Your task to perform on an android device: Add "bose soundsport free" to the cart on bestbuy Image 0: 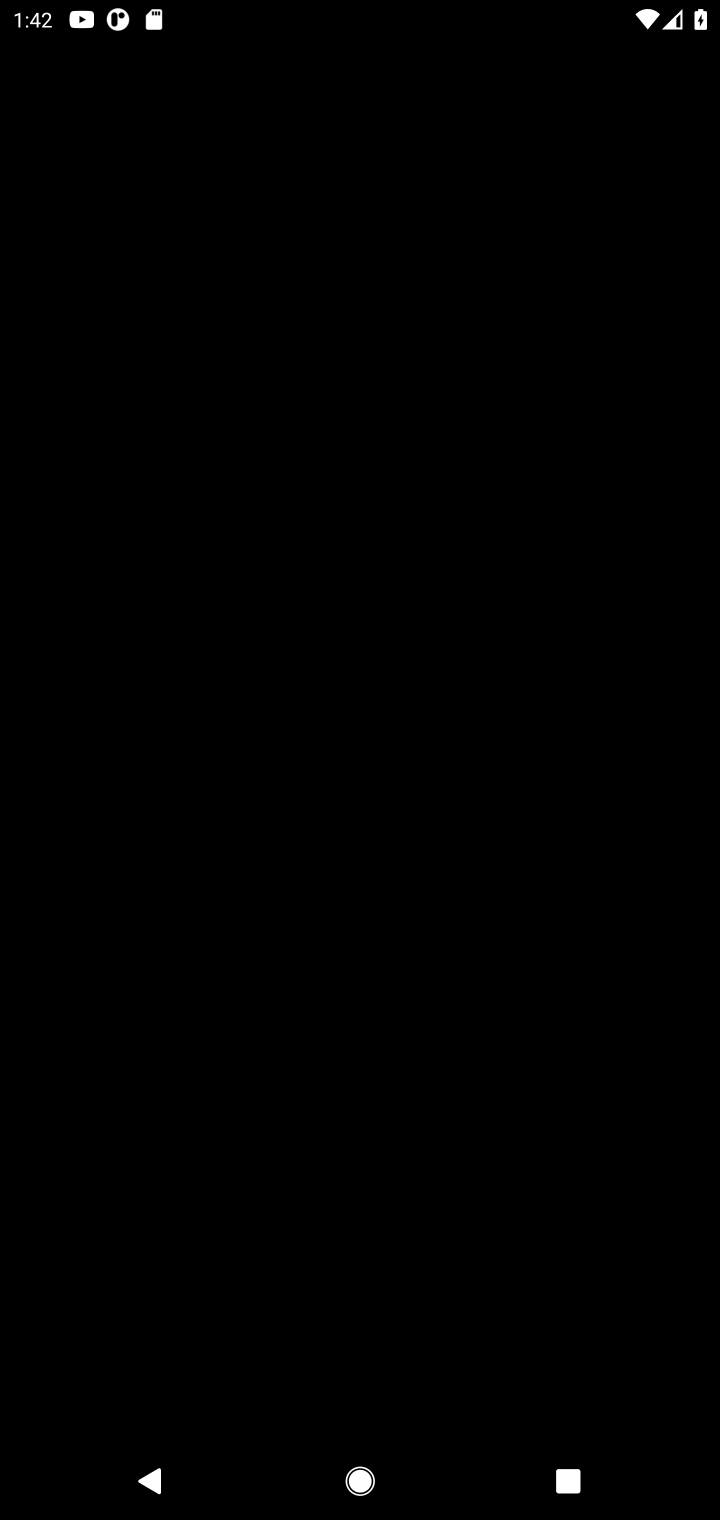
Step 0: press home button
Your task to perform on an android device: Add "bose soundsport free" to the cart on bestbuy Image 1: 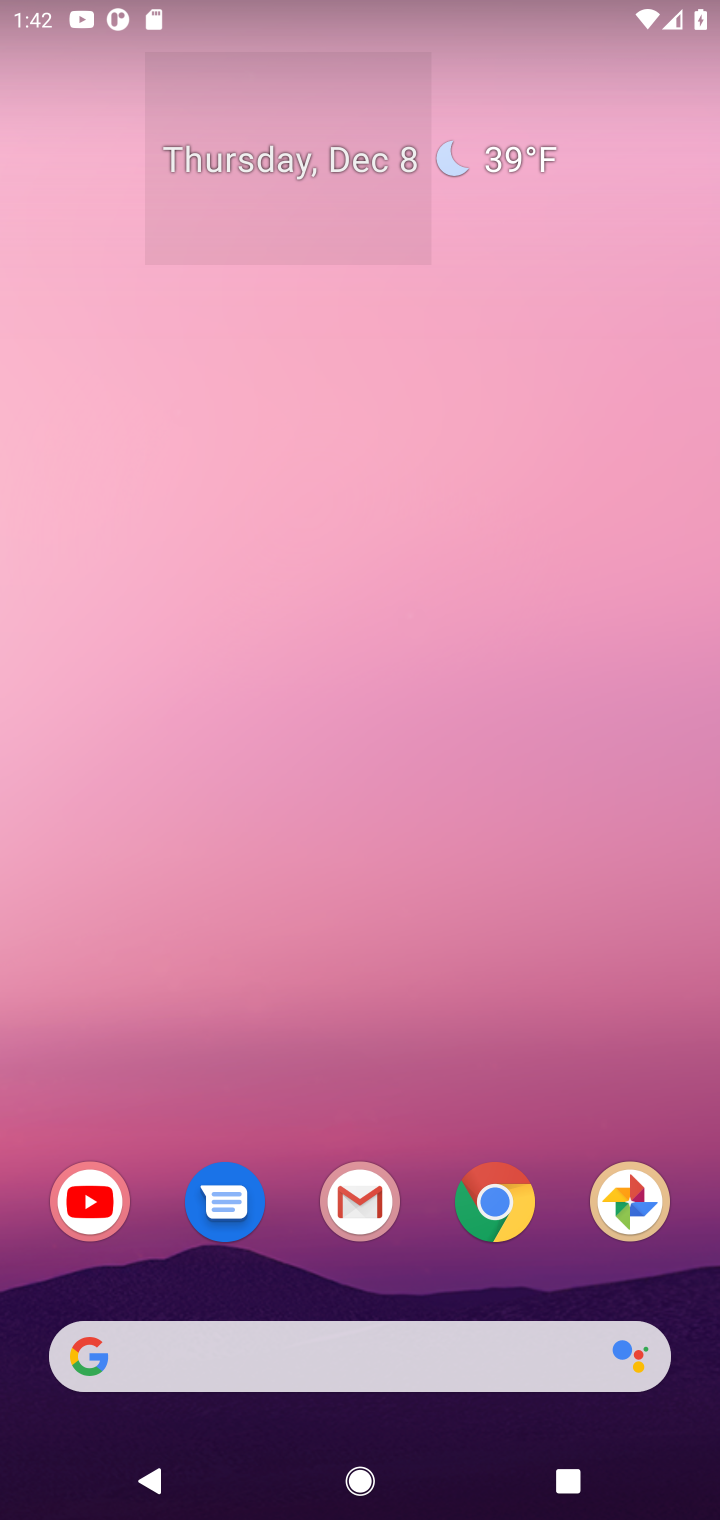
Step 1: click (485, 1178)
Your task to perform on an android device: Add "bose soundsport free" to the cart on bestbuy Image 2: 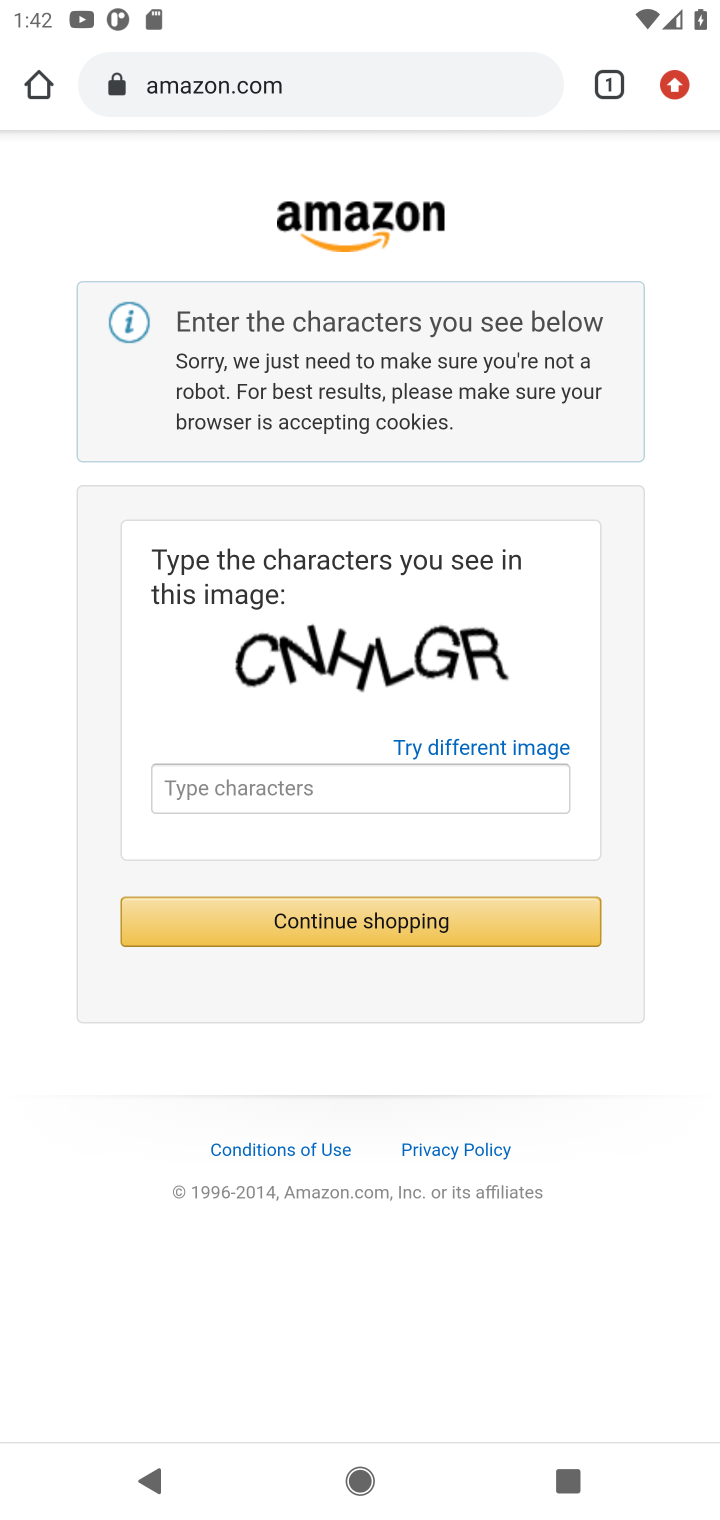
Step 2: click (428, 80)
Your task to perform on an android device: Add "bose soundsport free" to the cart on bestbuy Image 3: 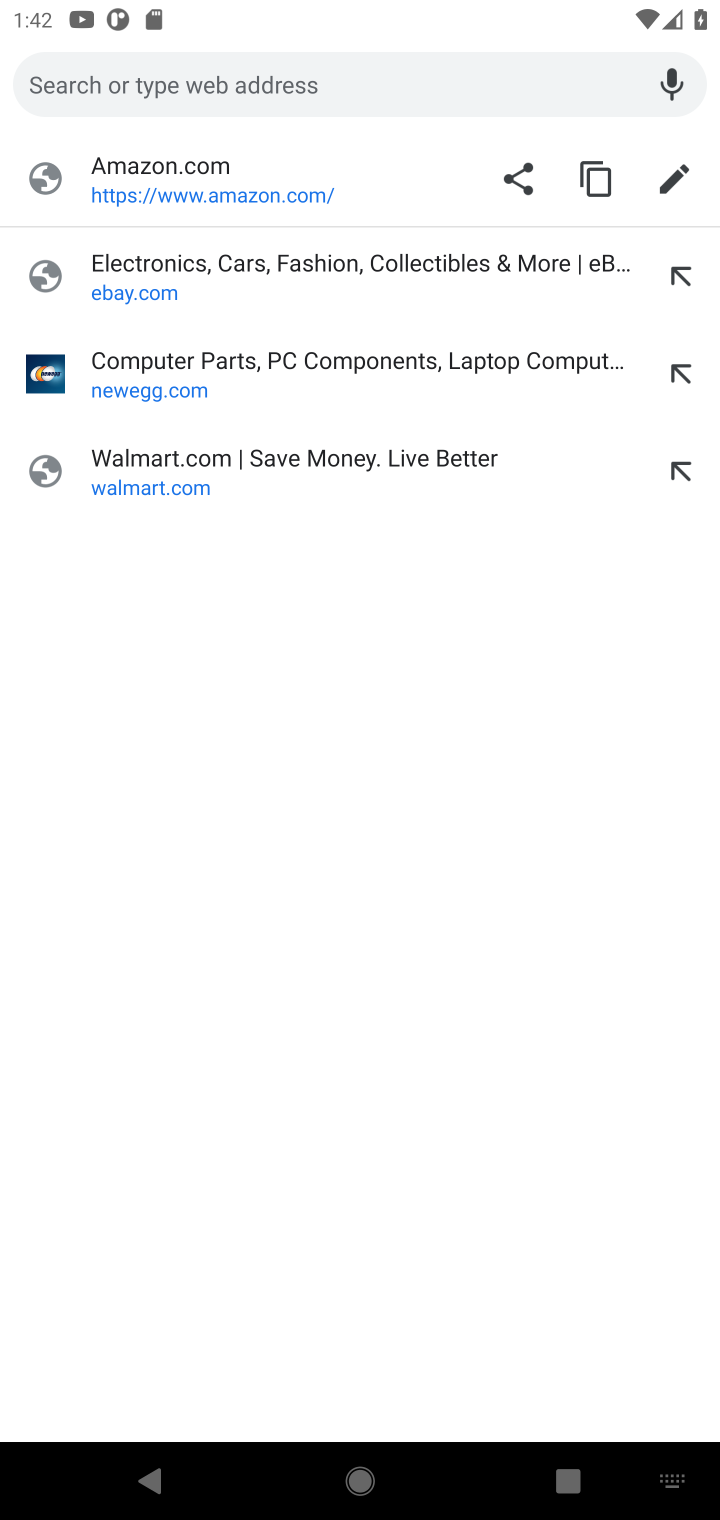
Step 3: press enter
Your task to perform on an android device: Add "bose soundsport free" to the cart on bestbuy Image 4: 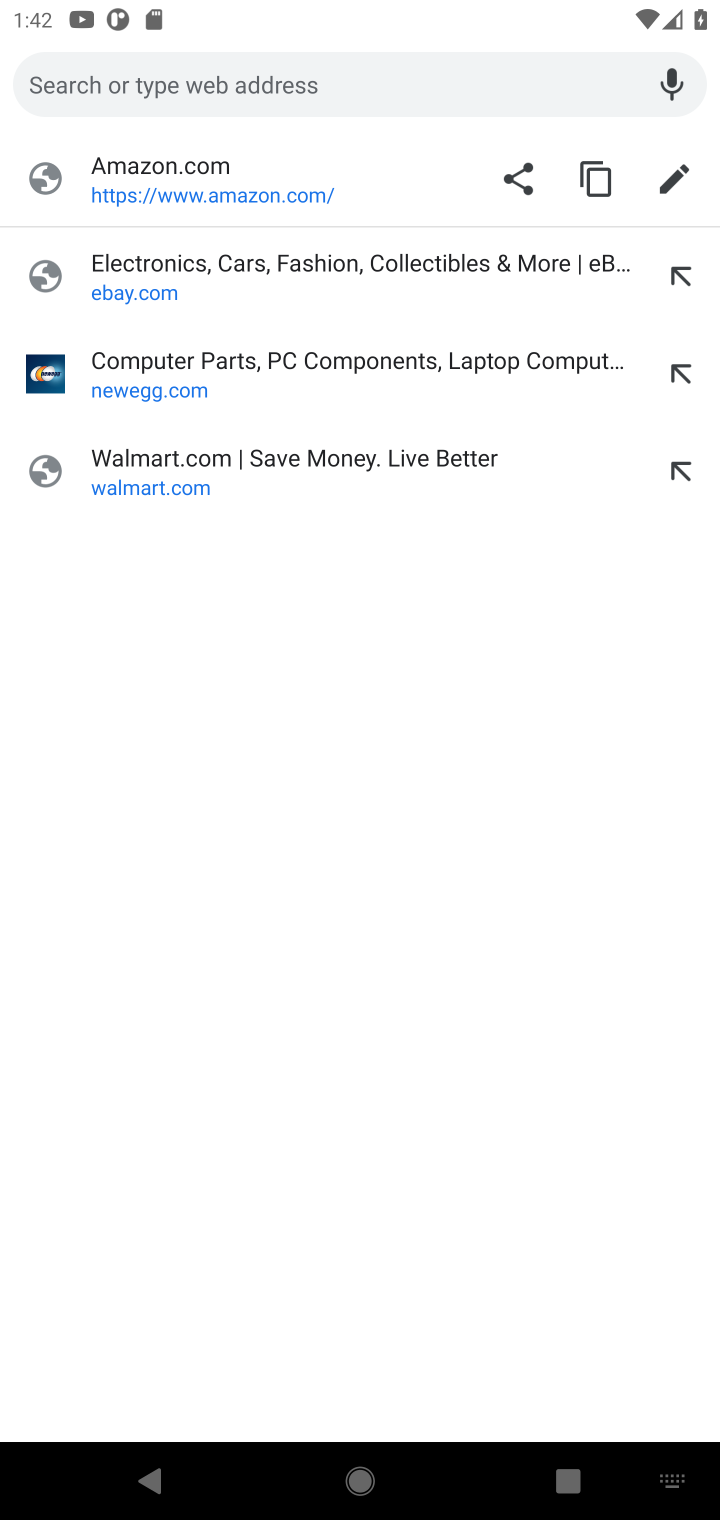
Step 4: type "bestbuy"
Your task to perform on an android device: Add "bose soundsport free" to the cart on bestbuy Image 5: 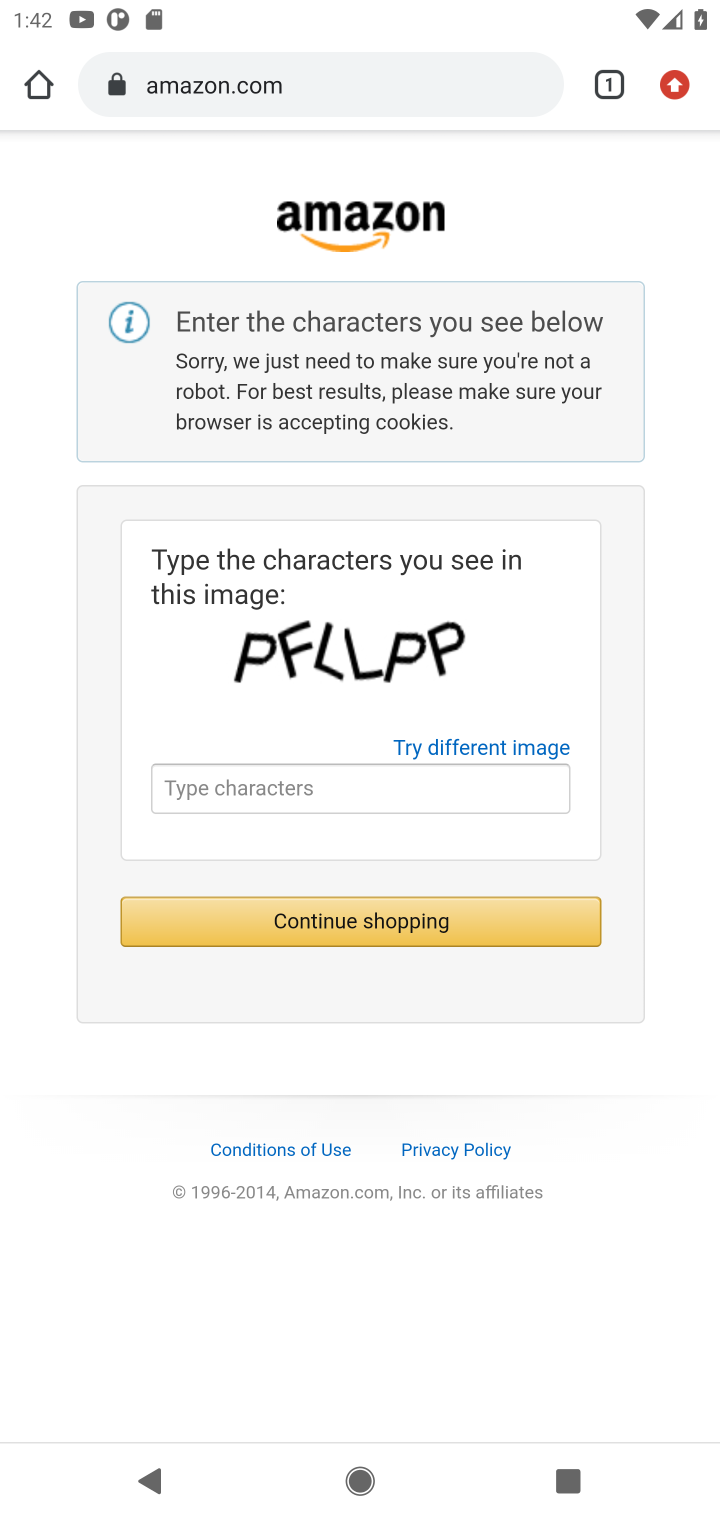
Step 5: click (28, 81)
Your task to perform on an android device: Add "bose soundsport free" to the cart on bestbuy Image 6: 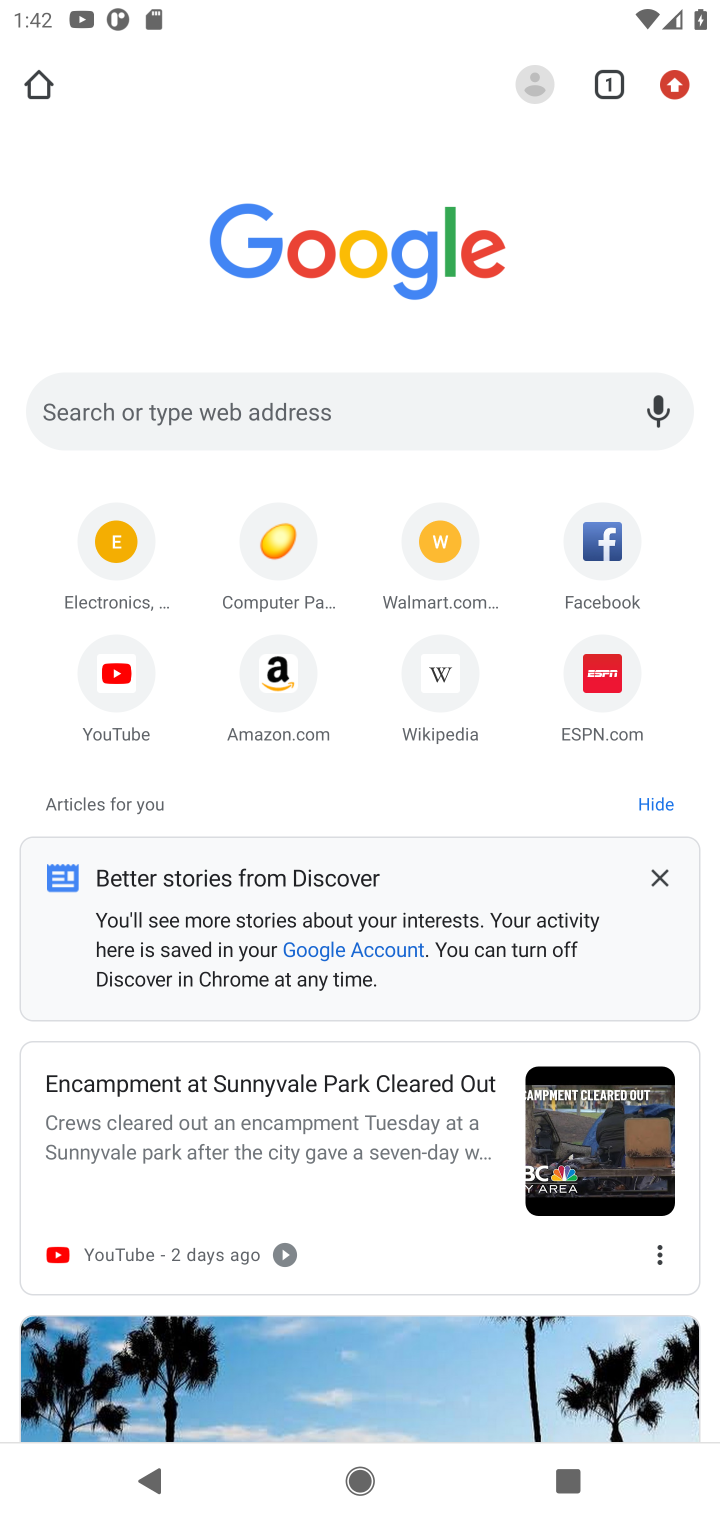
Step 6: click (387, 406)
Your task to perform on an android device: Add "bose soundsport free" to the cart on bestbuy Image 7: 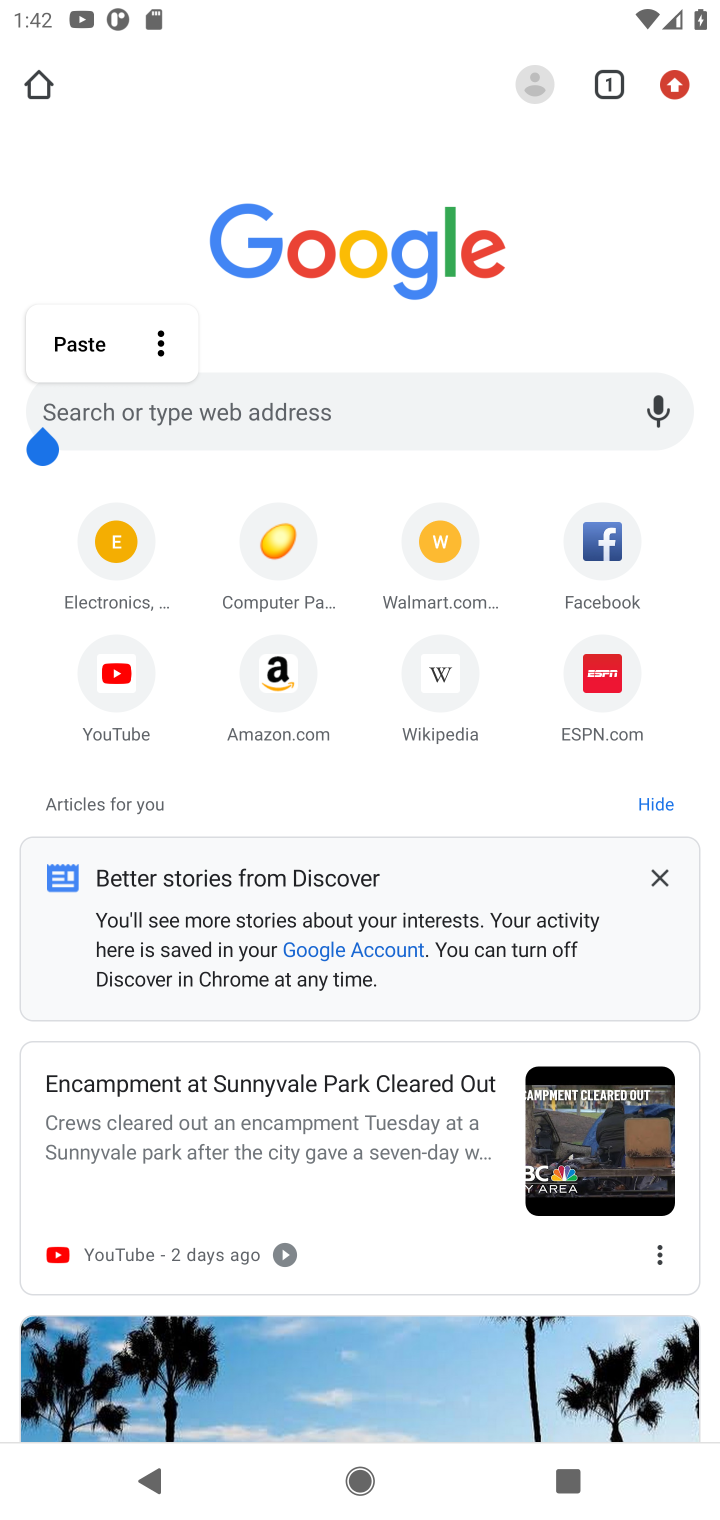
Step 7: click (387, 406)
Your task to perform on an android device: Add "bose soundsport free" to the cart on bestbuy Image 8: 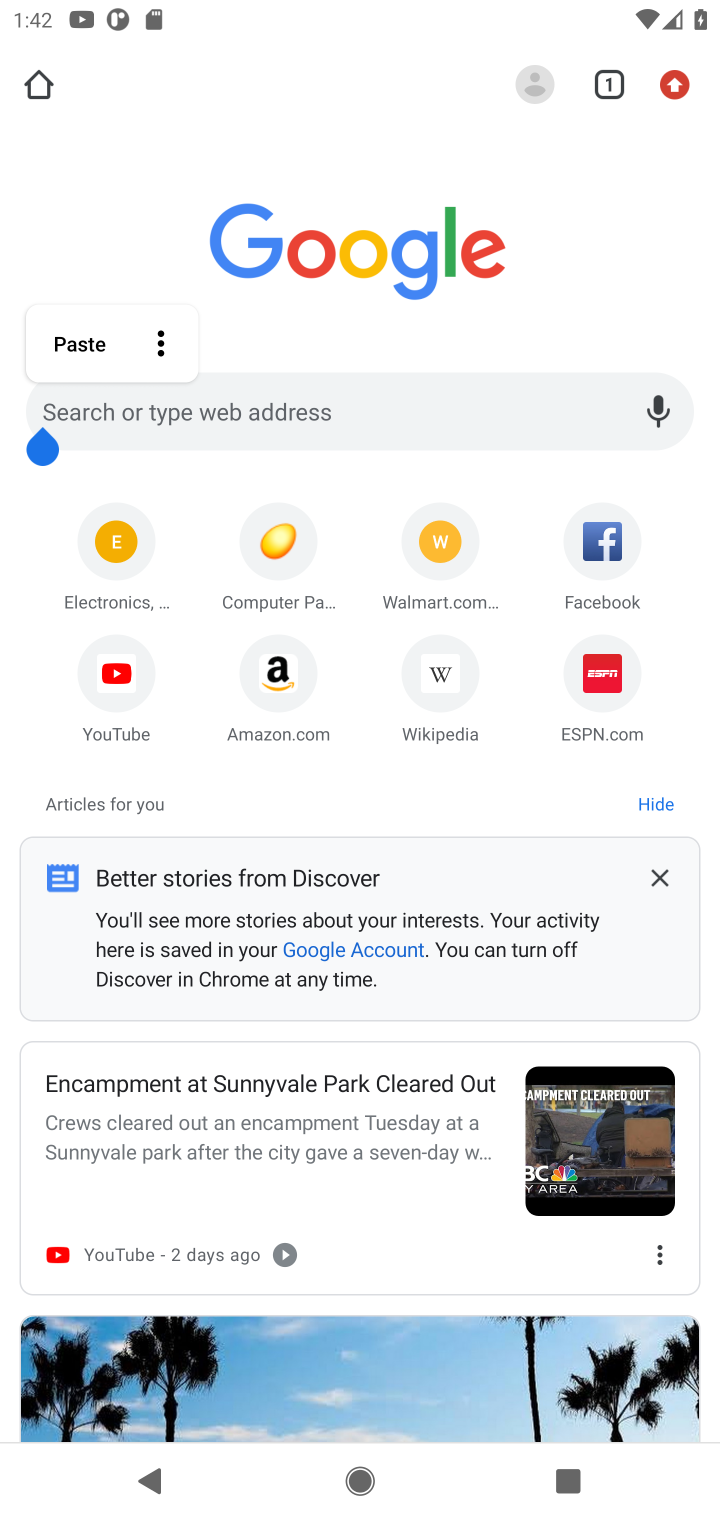
Step 8: click (387, 406)
Your task to perform on an android device: Add "bose soundsport free" to the cart on bestbuy Image 9: 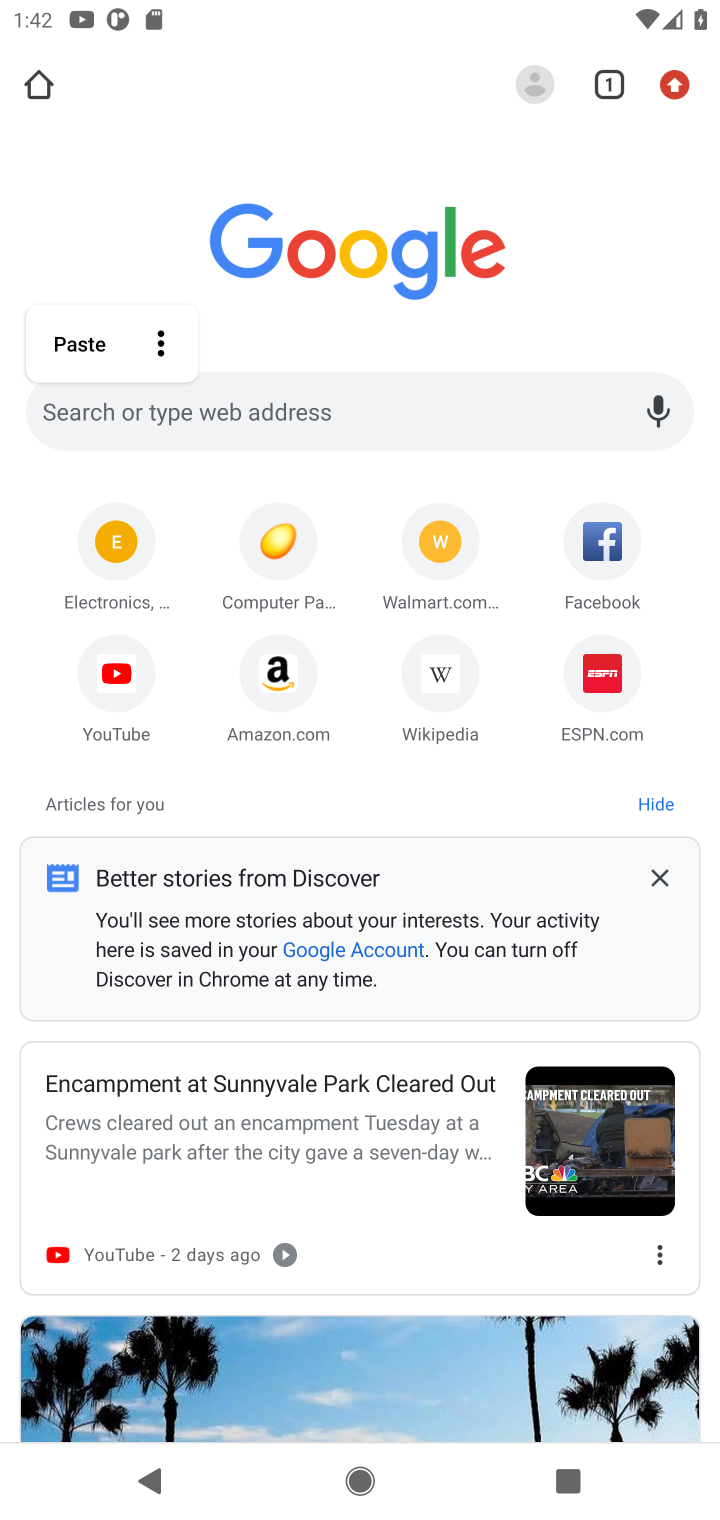
Step 9: type "bestbuy"
Your task to perform on an android device: Add "bose soundsport free" to the cart on bestbuy Image 10: 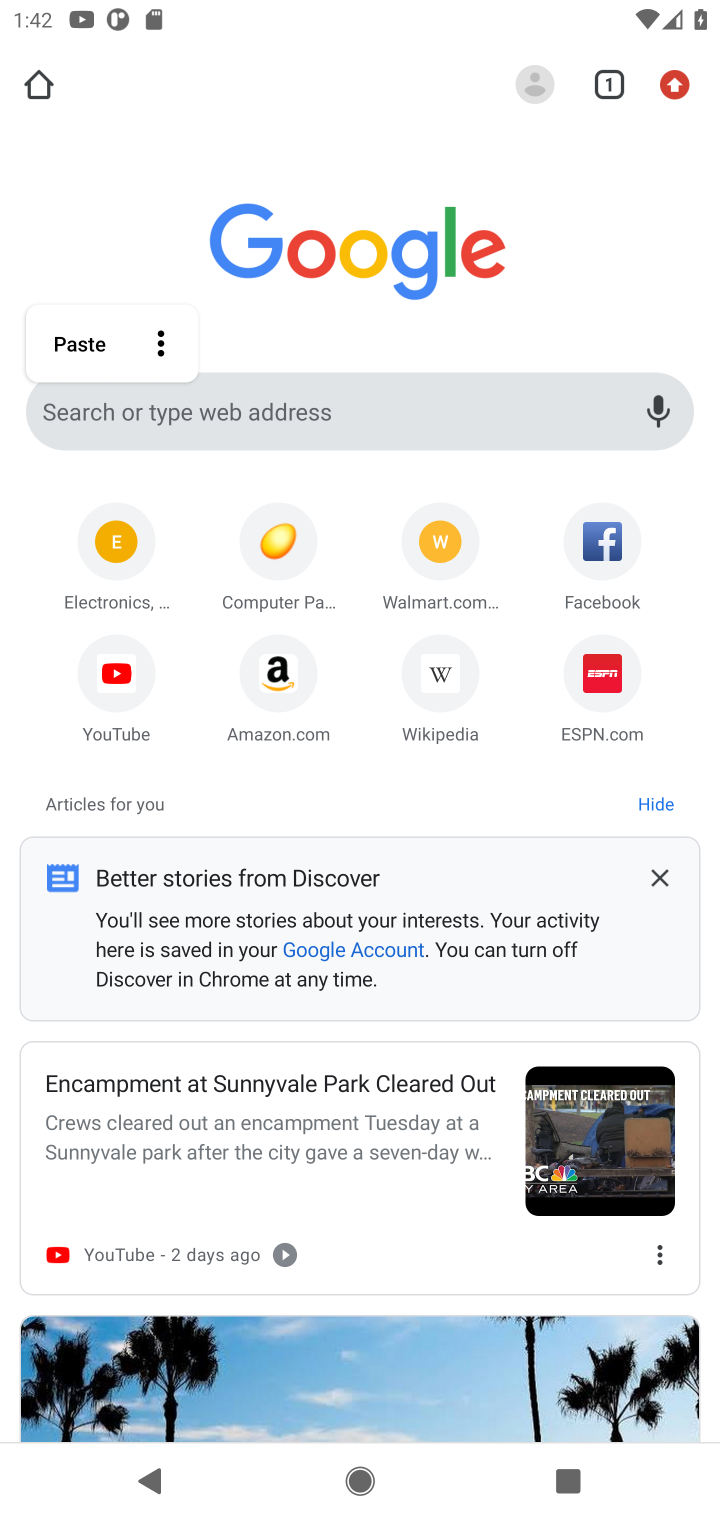
Step 10: click (662, 212)
Your task to perform on an android device: Add "bose soundsport free" to the cart on bestbuy Image 11: 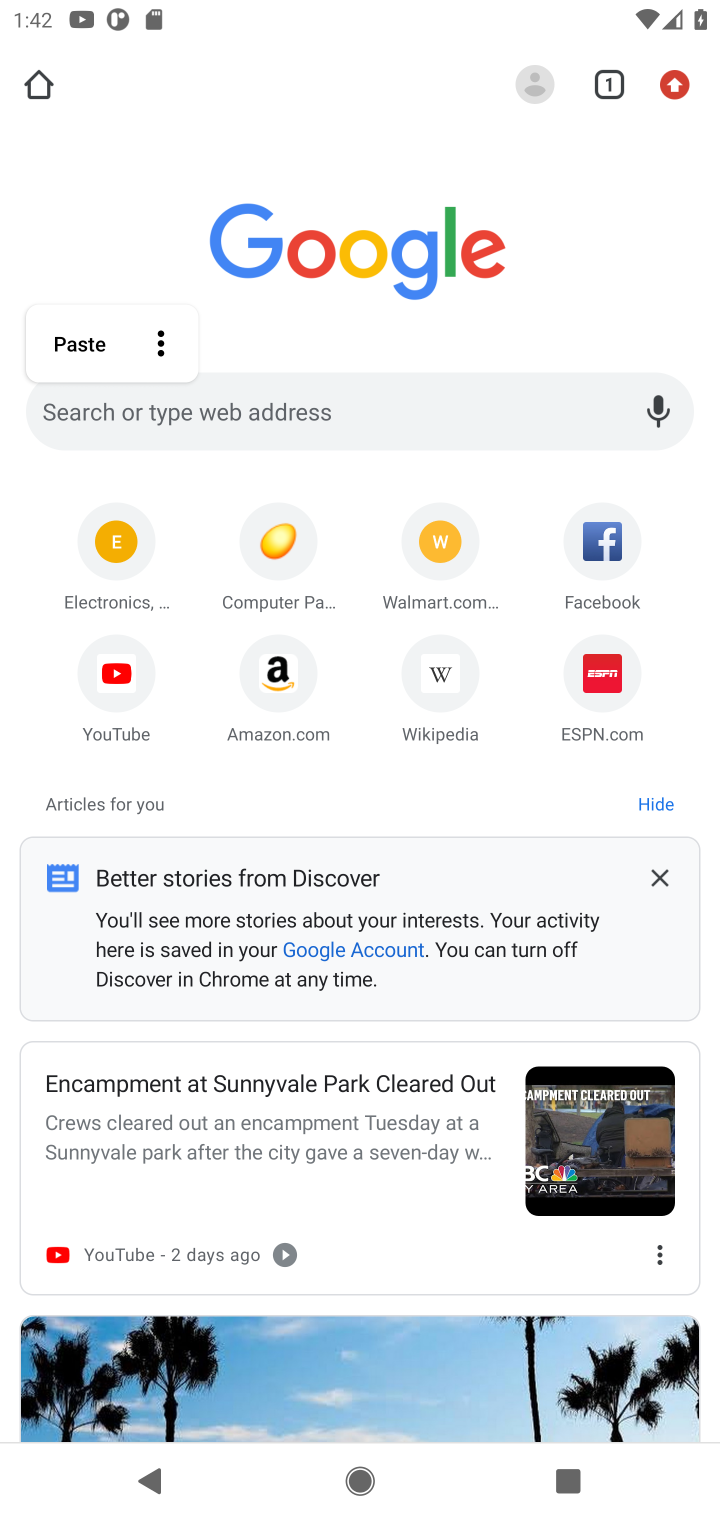
Step 11: click (484, 377)
Your task to perform on an android device: Add "bose soundsport free" to the cart on bestbuy Image 12: 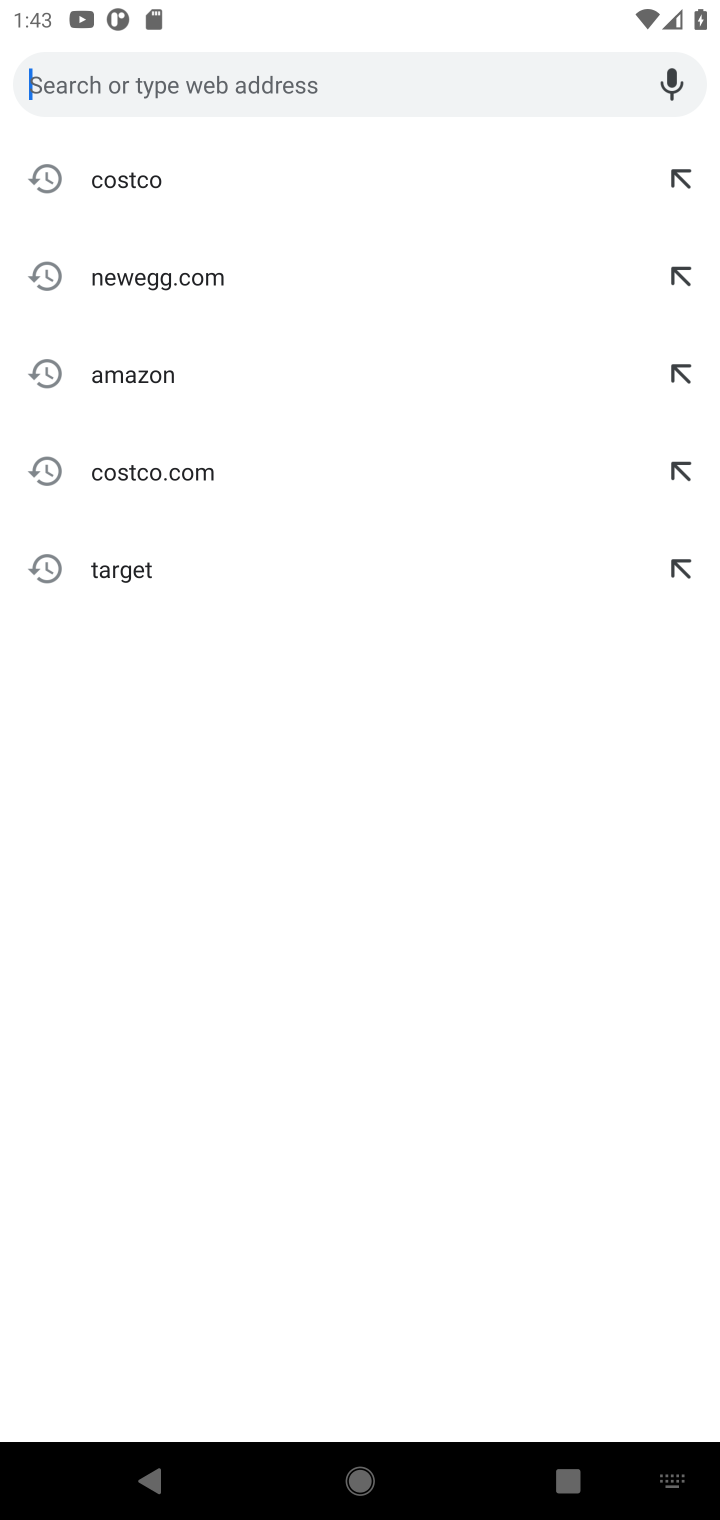
Step 12: type "besybuy"
Your task to perform on an android device: Add "bose soundsport free" to the cart on bestbuy Image 13: 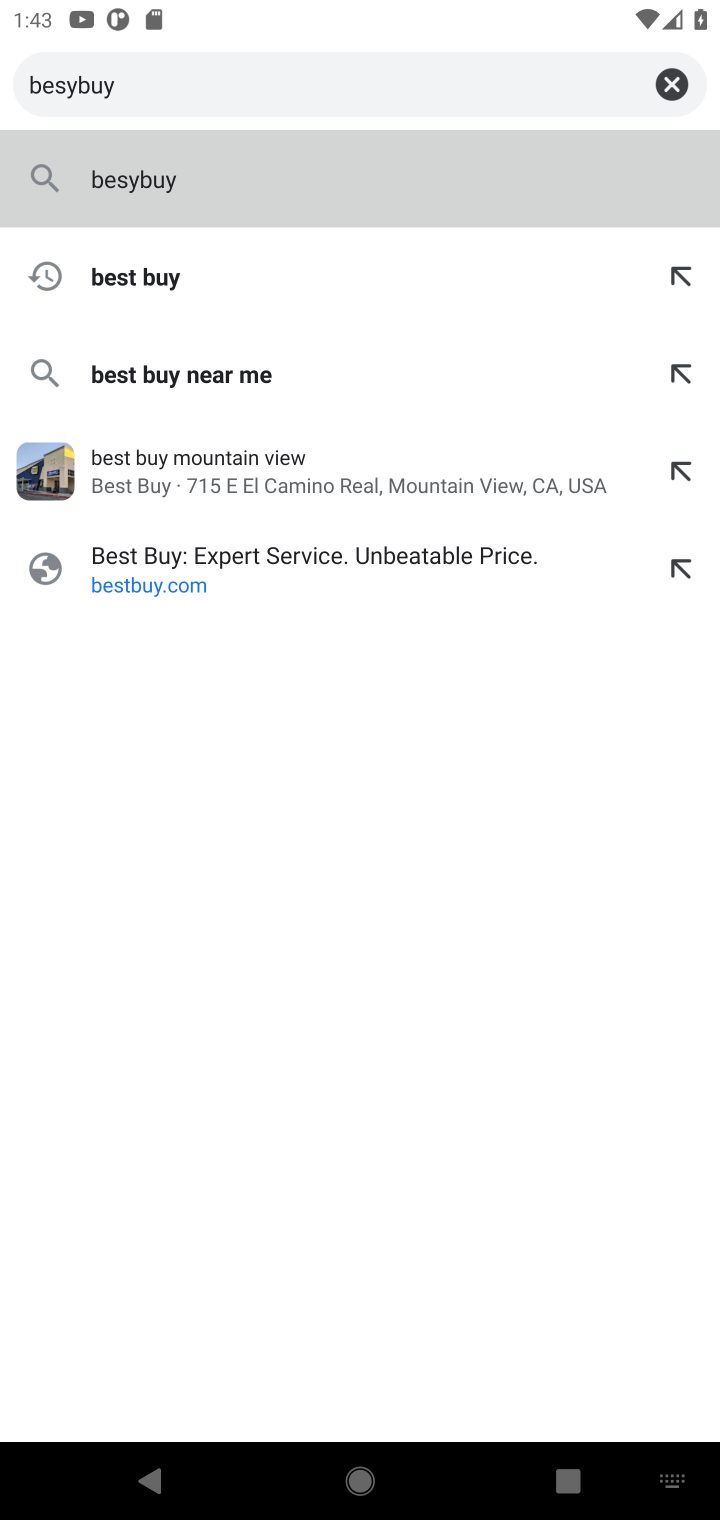
Step 13: click (193, 178)
Your task to perform on an android device: Add "bose soundsport free" to the cart on bestbuy Image 14: 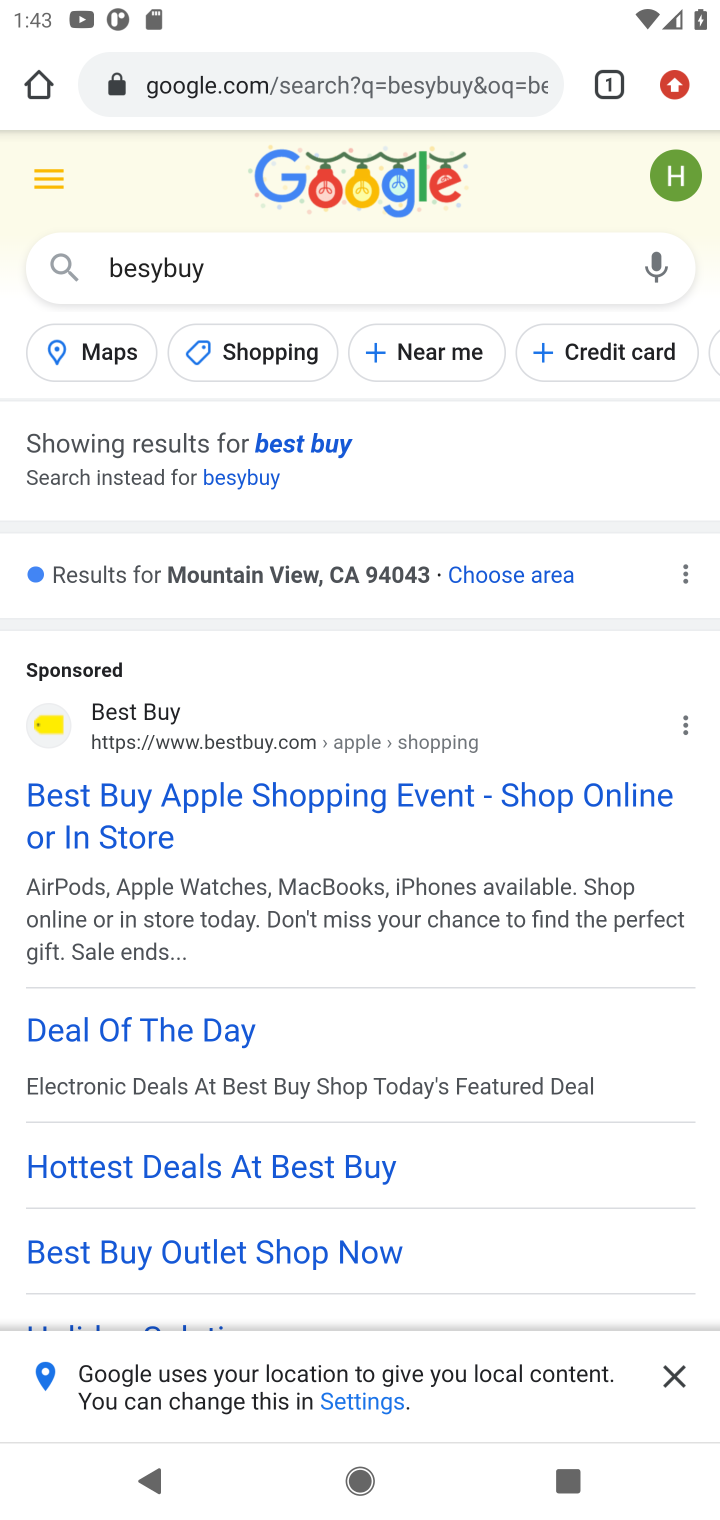
Step 14: click (207, 740)
Your task to perform on an android device: Add "bose soundsport free" to the cart on bestbuy Image 15: 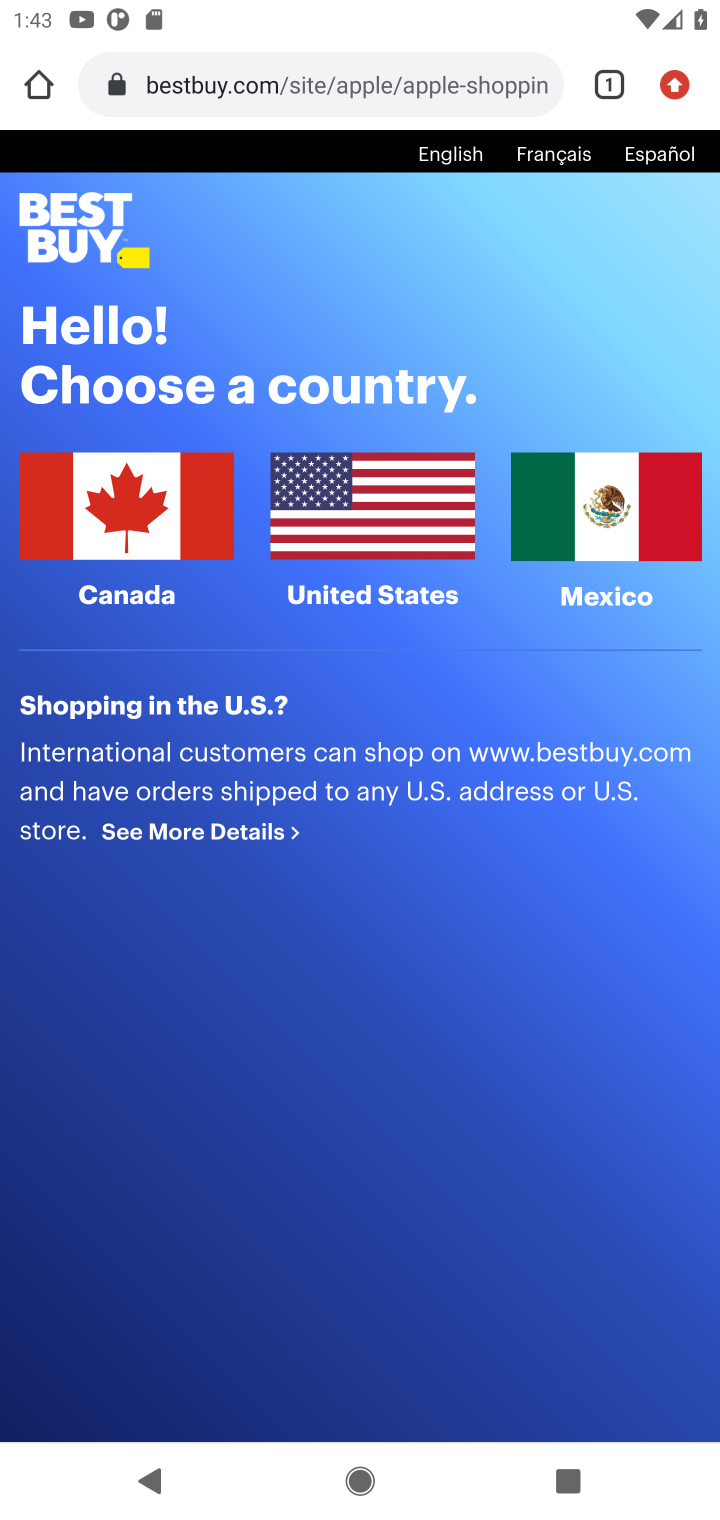
Step 15: click (401, 513)
Your task to perform on an android device: Add "bose soundsport free" to the cart on bestbuy Image 16: 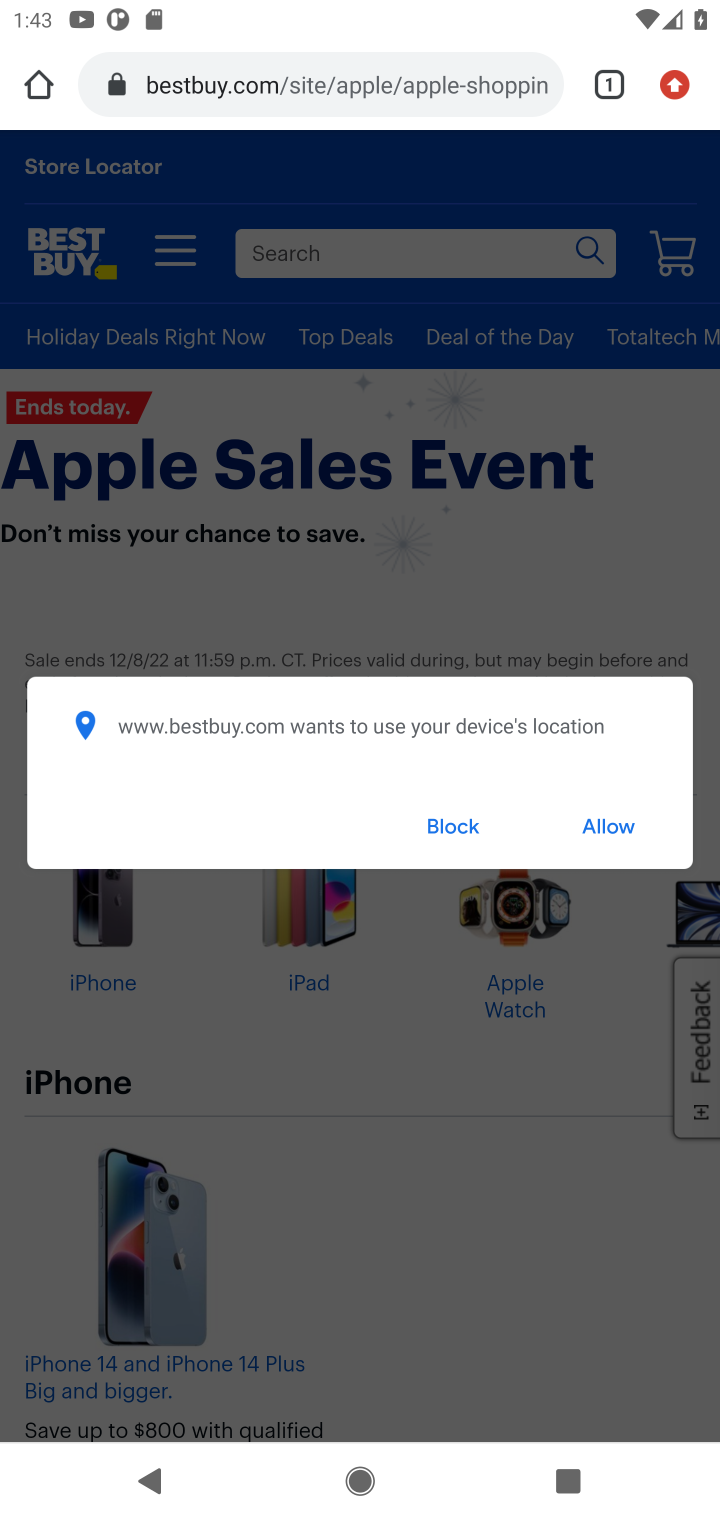
Step 16: click (458, 835)
Your task to perform on an android device: Add "bose soundsport free" to the cart on bestbuy Image 17: 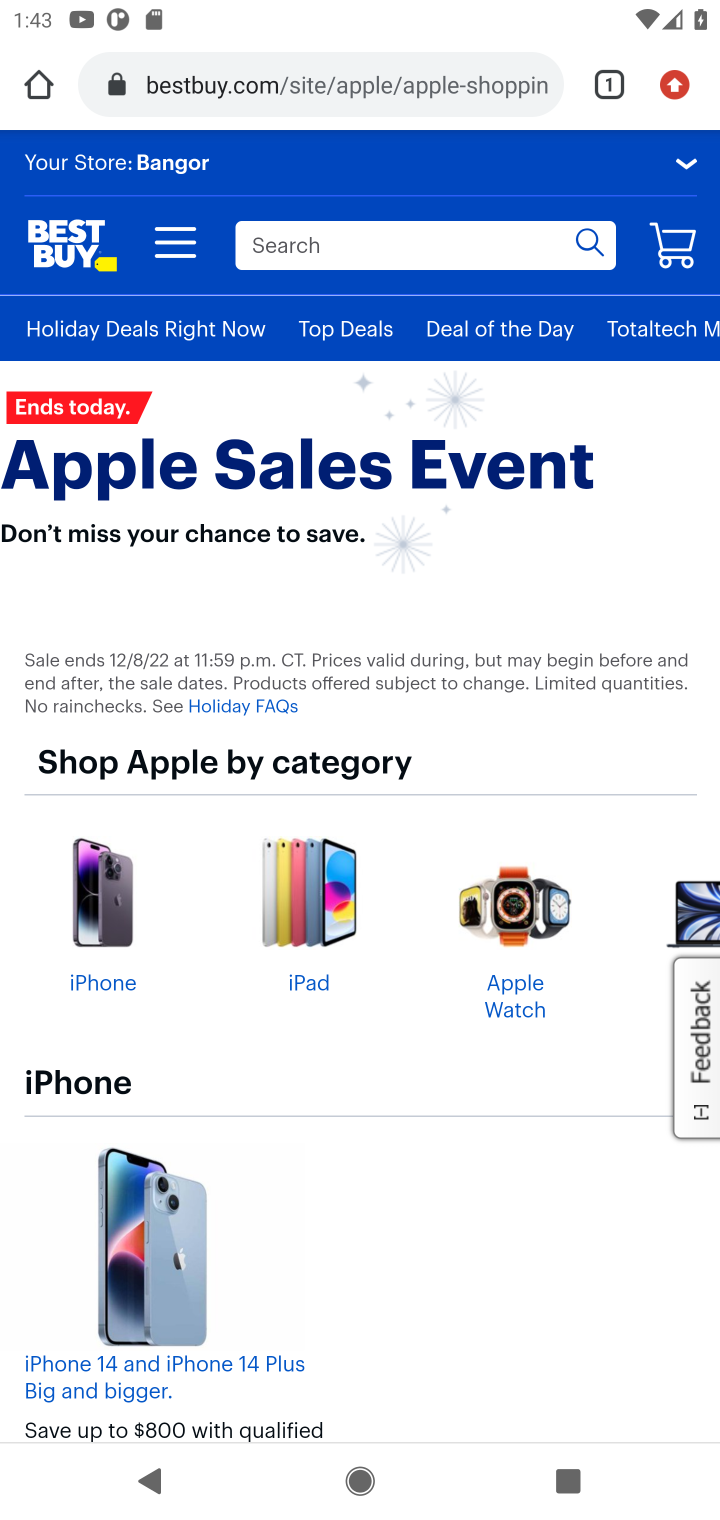
Step 17: click (479, 261)
Your task to perform on an android device: Add "bose soundsport free" to the cart on bestbuy Image 18: 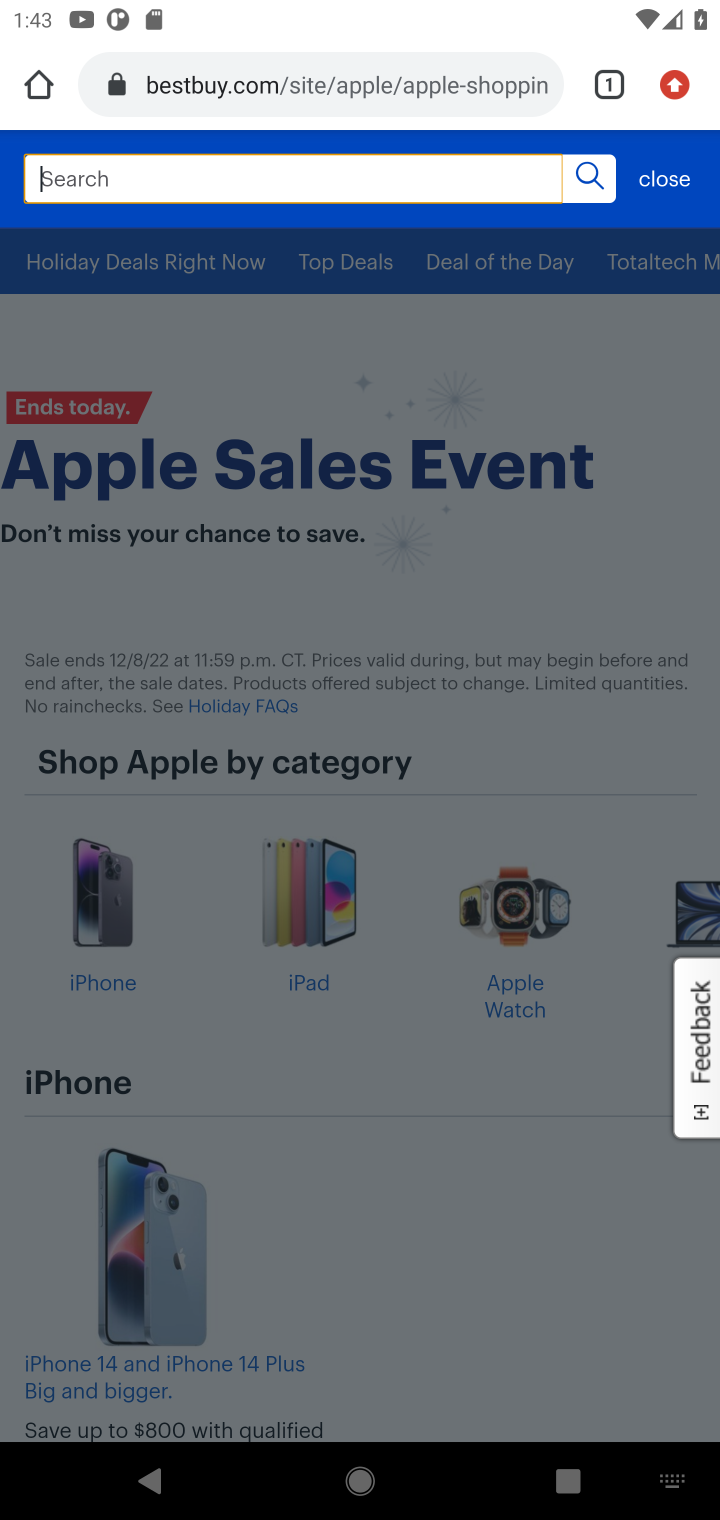
Step 18: type "bose soundsport free"
Your task to perform on an android device: Add "bose soundsport free" to the cart on bestbuy Image 19: 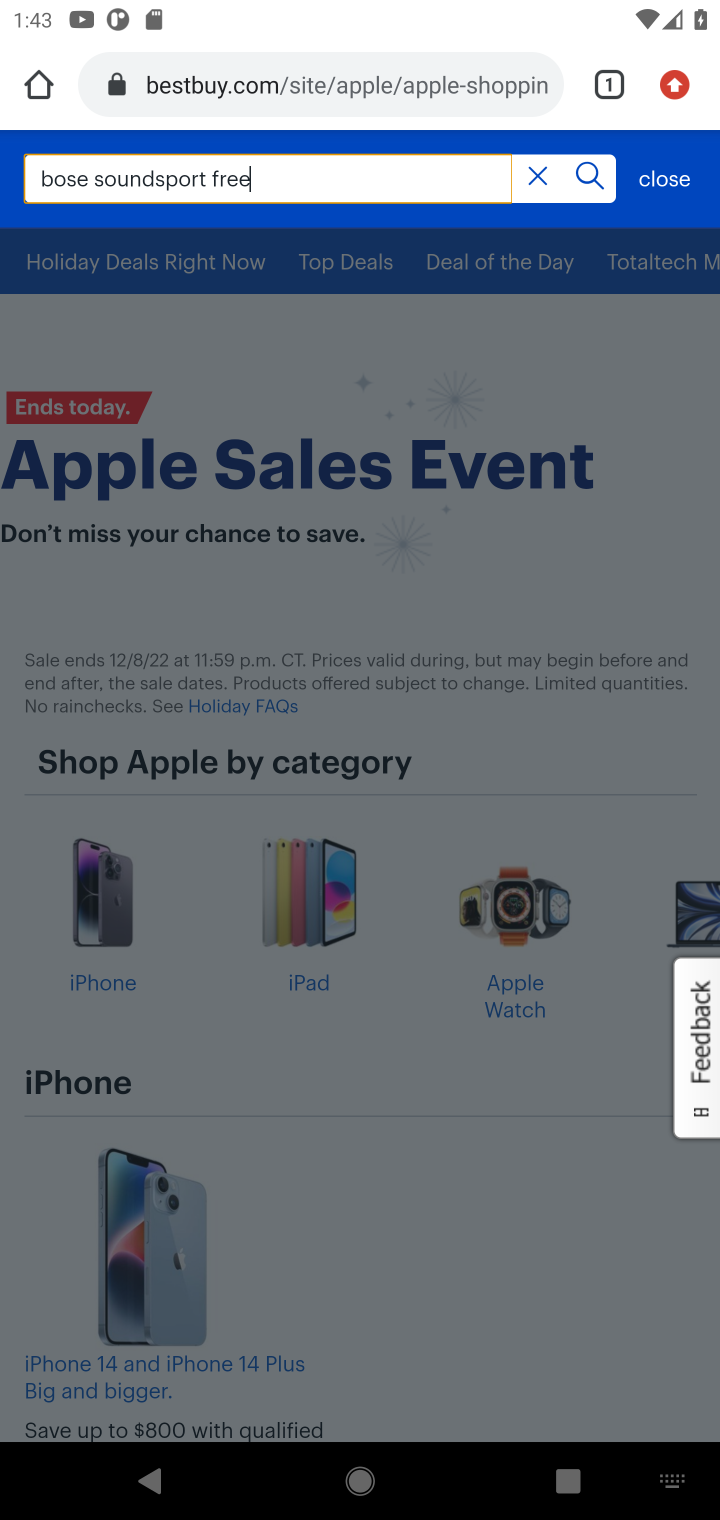
Step 19: press enter
Your task to perform on an android device: Add "bose soundsport free" to the cart on bestbuy Image 20: 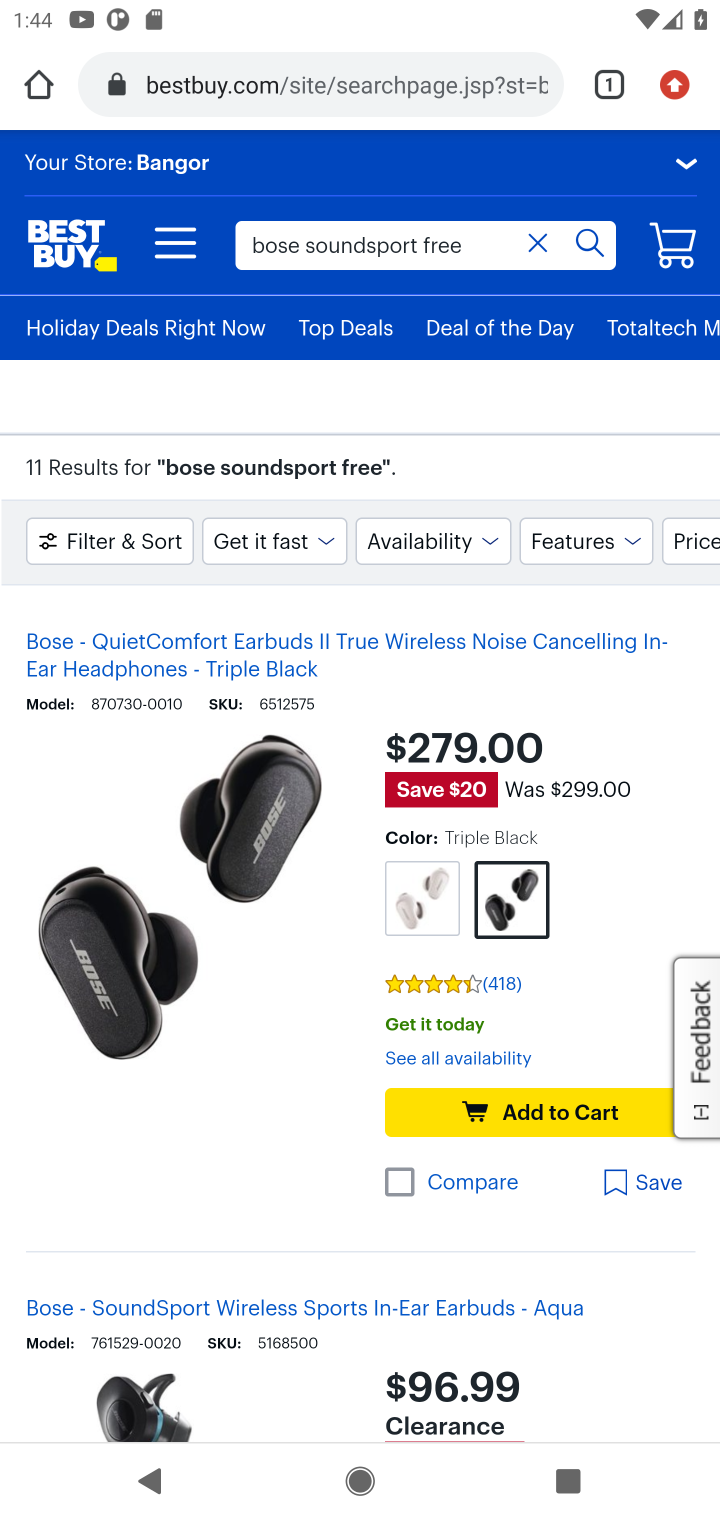
Step 20: task complete